Your task to perform on an android device: set the stopwatch Image 0: 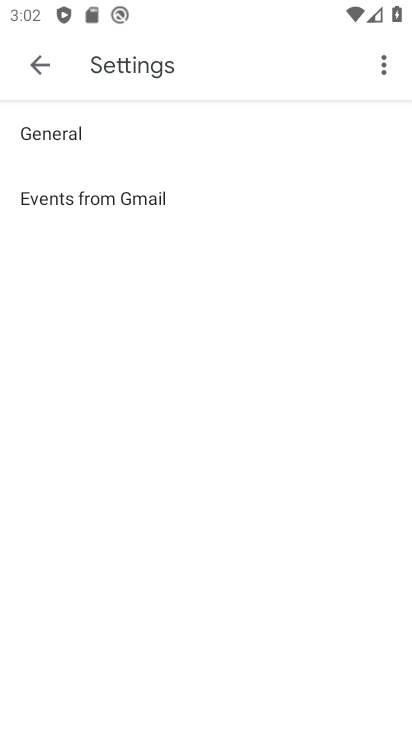
Step 0: press home button
Your task to perform on an android device: set the stopwatch Image 1: 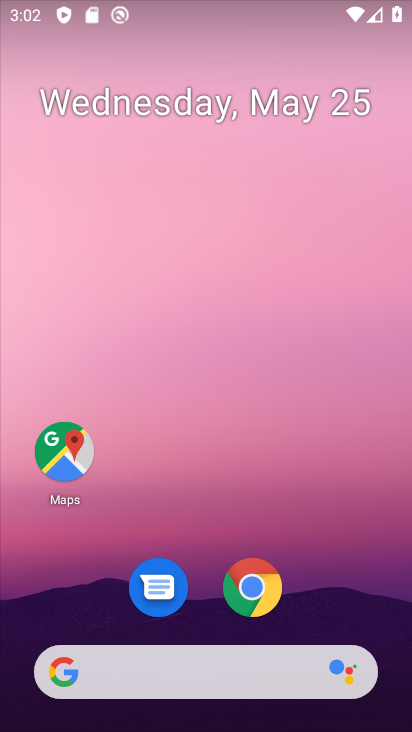
Step 1: drag from (72, 653) to (169, 187)
Your task to perform on an android device: set the stopwatch Image 2: 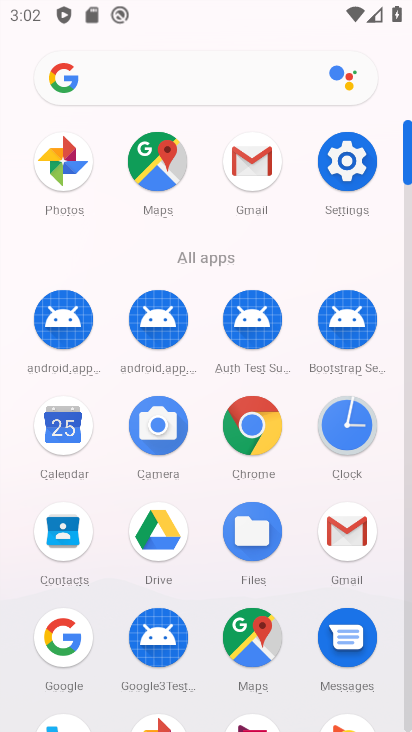
Step 2: click (357, 426)
Your task to perform on an android device: set the stopwatch Image 3: 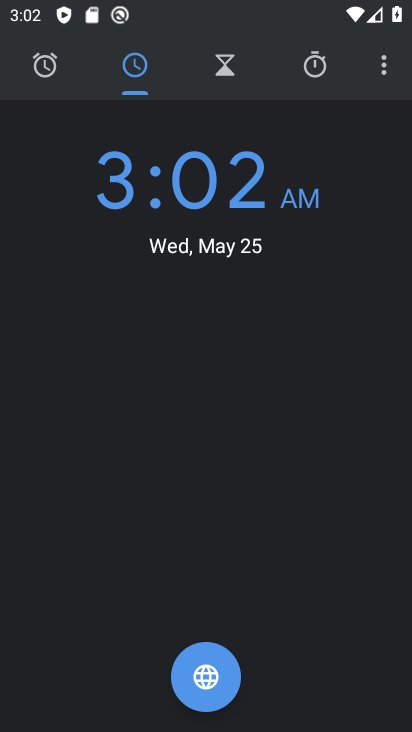
Step 3: click (311, 72)
Your task to perform on an android device: set the stopwatch Image 4: 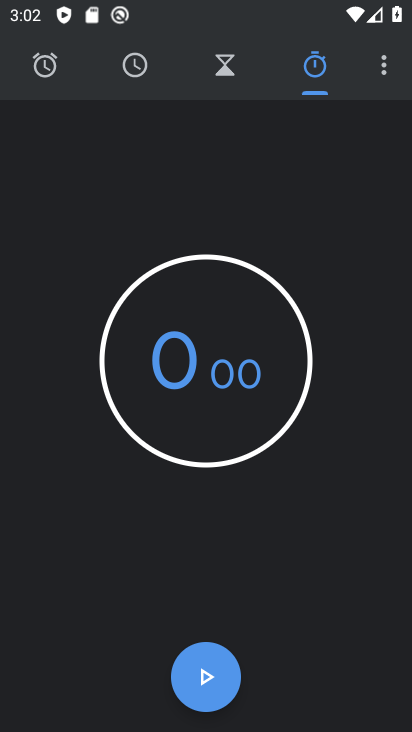
Step 4: click (215, 675)
Your task to perform on an android device: set the stopwatch Image 5: 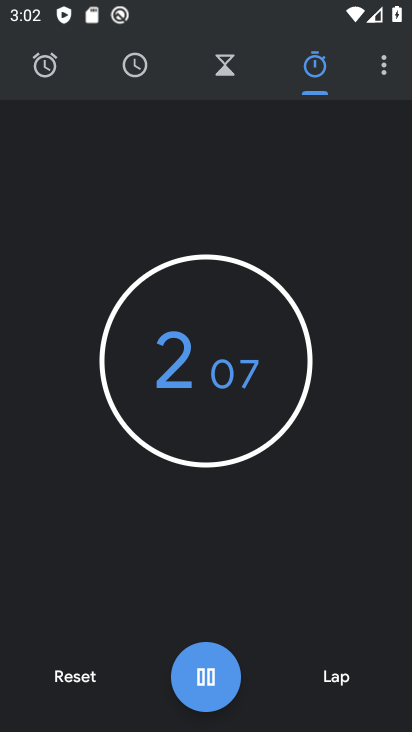
Step 5: task complete